Your task to perform on an android device: Open Chrome and go to settings Image 0: 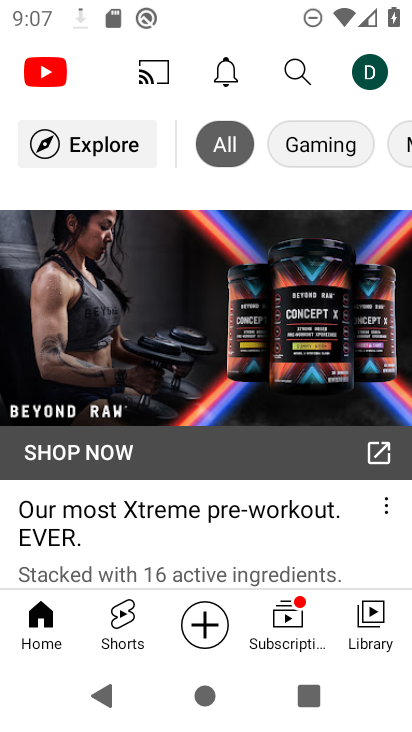
Step 0: press back button
Your task to perform on an android device: Open Chrome and go to settings Image 1: 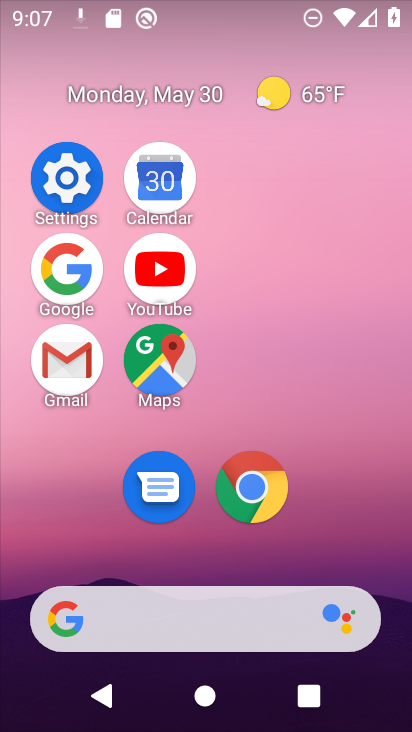
Step 1: click (257, 505)
Your task to perform on an android device: Open Chrome and go to settings Image 2: 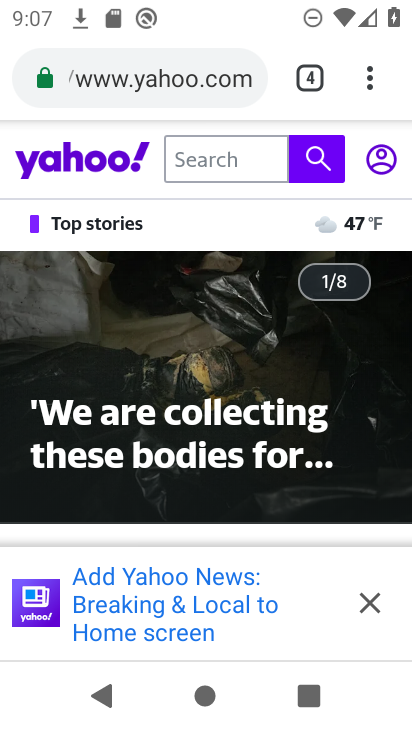
Step 2: click (381, 85)
Your task to perform on an android device: Open Chrome and go to settings Image 3: 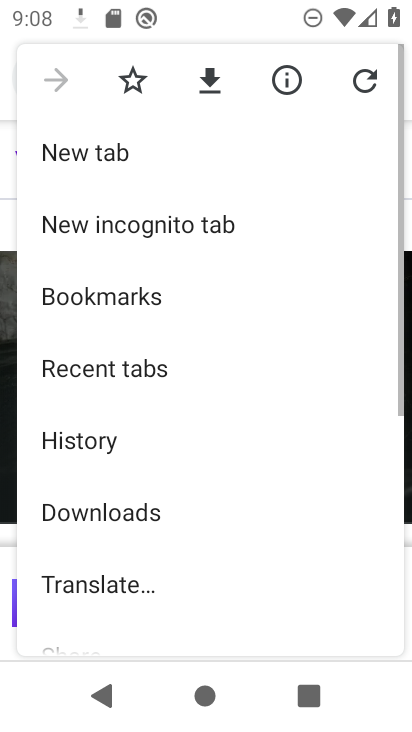
Step 3: drag from (214, 582) to (233, 221)
Your task to perform on an android device: Open Chrome and go to settings Image 4: 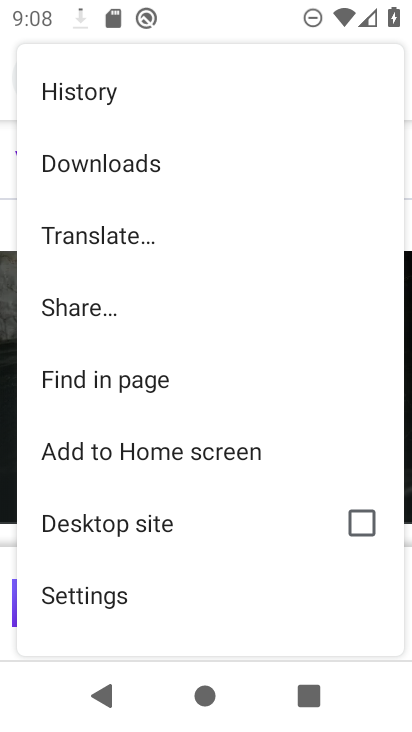
Step 4: click (122, 582)
Your task to perform on an android device: Open Chrome and go to settings Image 5: 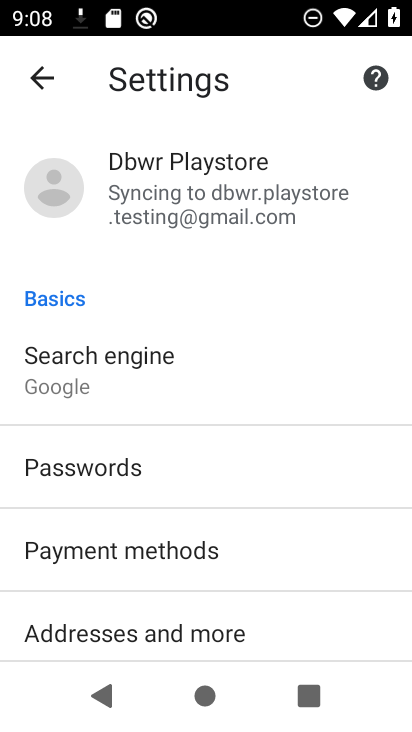
Step 5: task complete